Your task to perform on an android device: Open battery settings Image 0: 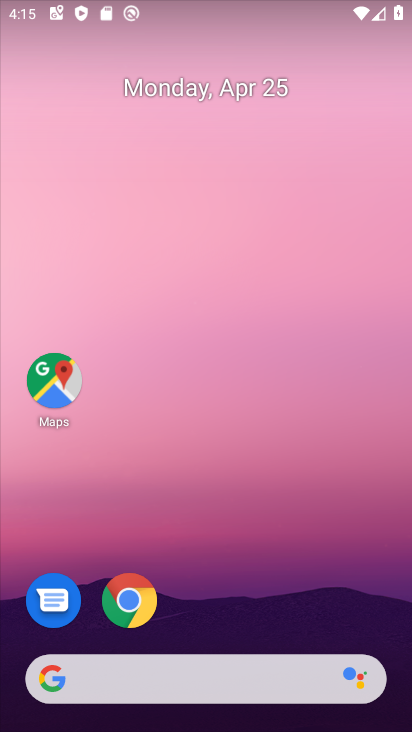
Step 0: drag from (264, 556) to (135, 4)
Your task to perform on an android device: Open battery settings Image 1: 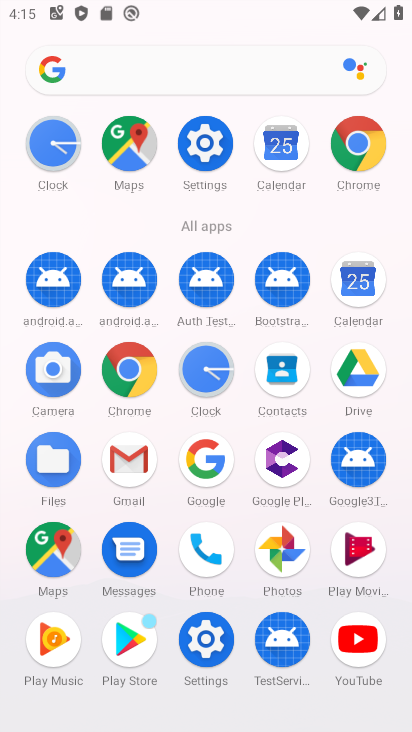
Step 1: click (210, 146)
Your task to perform on an android device: Open battery settings Image 2: 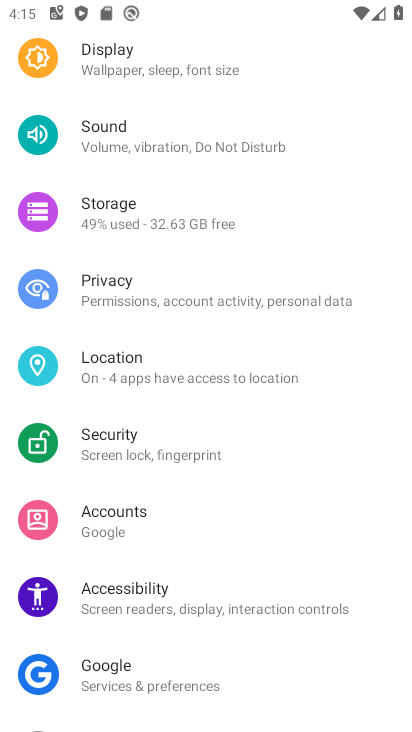
Step 2: drag from (250, 127) to (246, 483)
Your task to perform on an android device: Open battery settings Image 3: 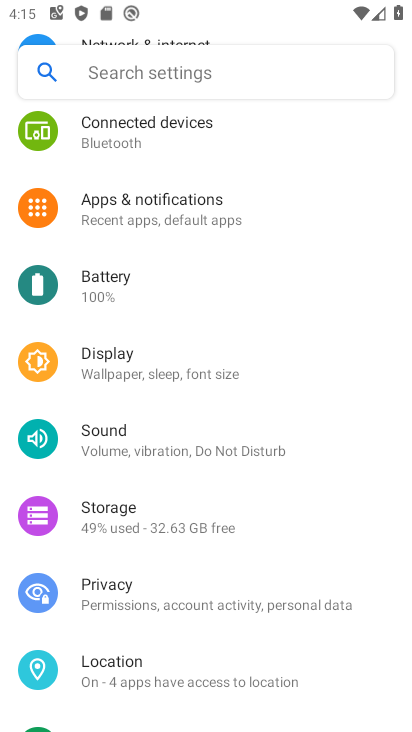
Step 3: drag from (217, 150) to (217, 552)
Your task to perform on an android device: Open battery settings Image 4: 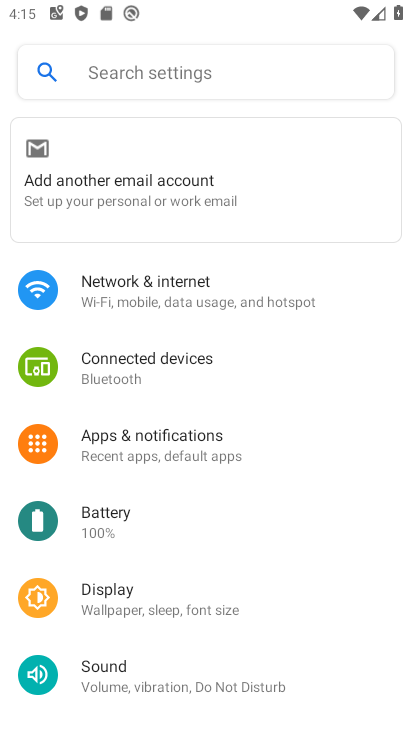
Step 4: click (96, 517)
Your task to perform on an android device: Open battery settings Image 5: 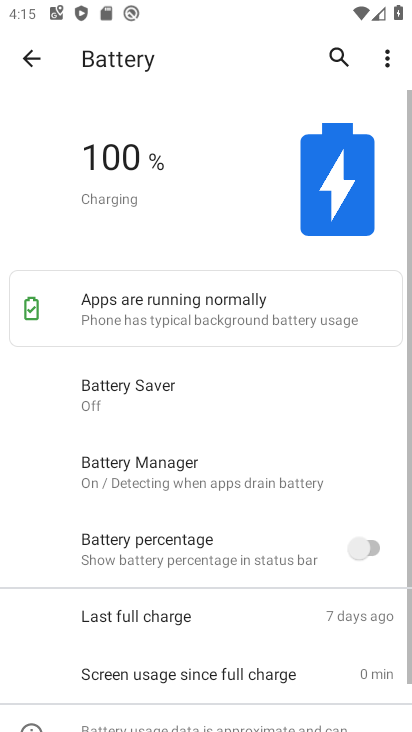
Step 5: task complete